Your task to perform on an android device: allow cookies in the chrome app Image 0: 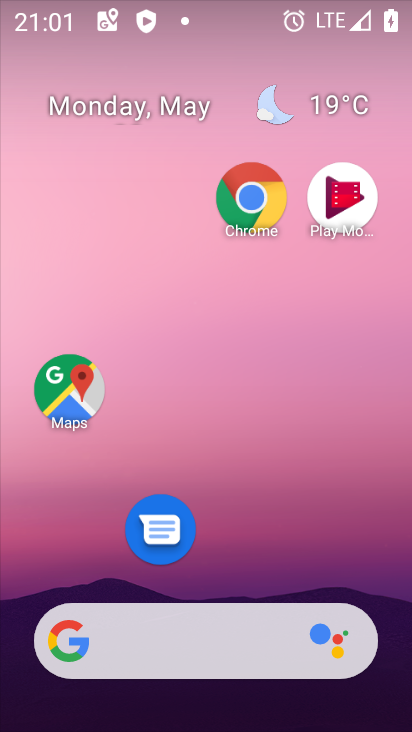
Step 0: click (241, 198)
Your task to perform on an android device: allow cookies in the chrome app Image 1: 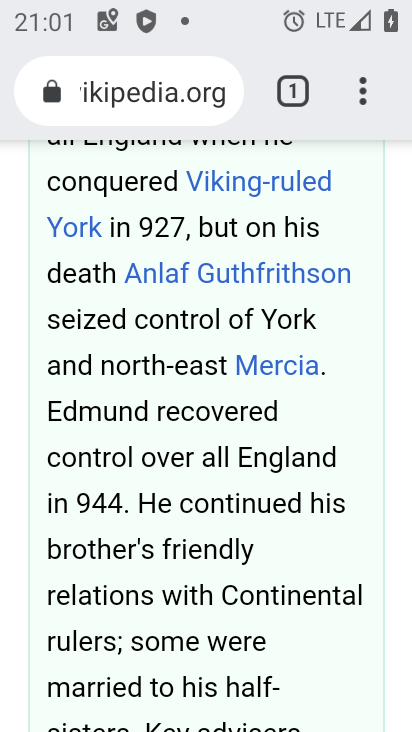
Step 1: click (361, 102)
Your task to perform on an android device: allow cookies in the chrome app Image 2: 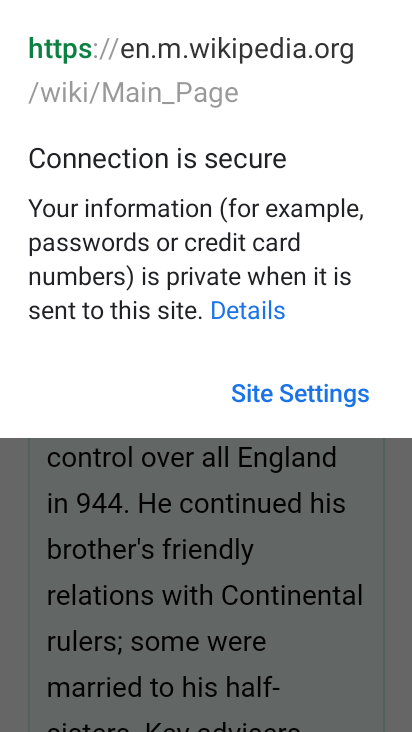
Step 2: click (222, 485)
Your task to perform on an android device: allow cookies in the chrome app Image 3: 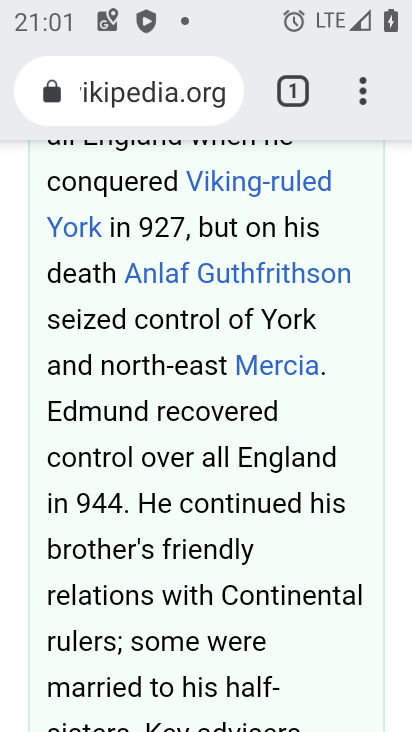
Step 3: click (360, 104)
Your task to perform on an android device: allow cookies in the chrome app Image 4: 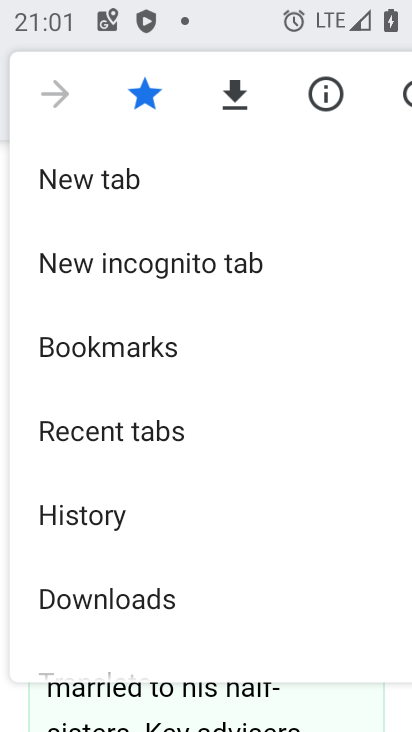
Step 4: drag from (118, 578) to (120, 218)
Your task to perform on an android device: allow cookies in the chrome app Image 5: 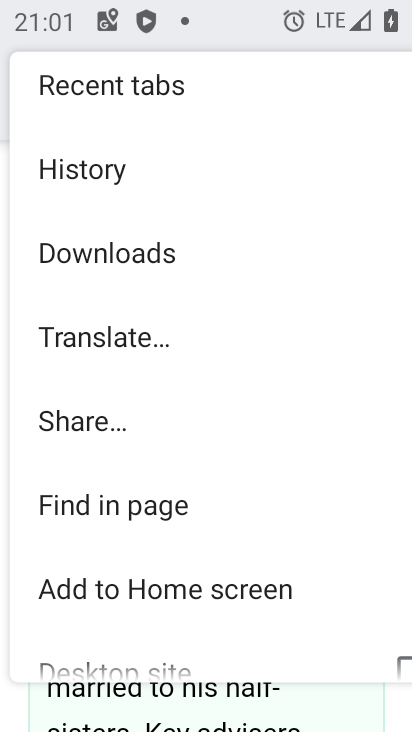
Step 5: drag from (124, 532) to (167, 278)
Your task to perform on an android device: allow cookies in the chrome app Image 6: 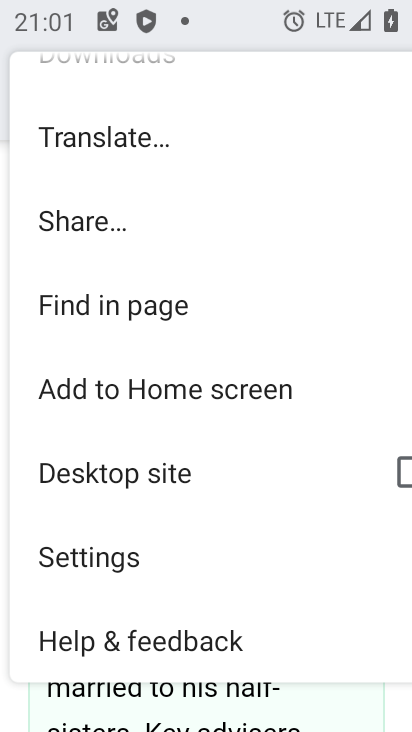
Step 6: click (98, 569)
Your task to perform on an android device: allow cookies in the chrome app Image 7: 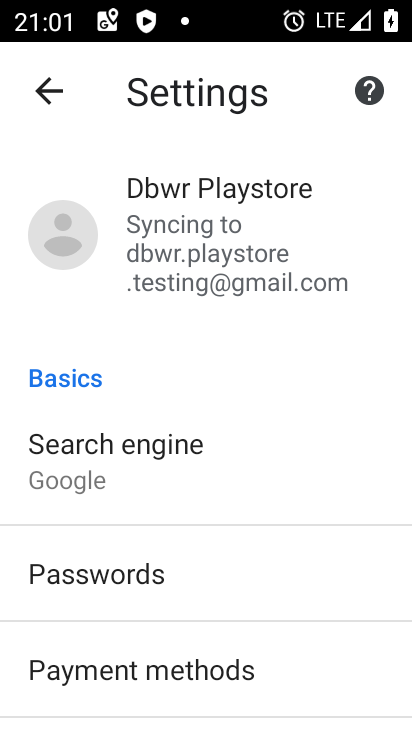
Step 7: drag from (172, 619) to (231, 389)
Your task to perform on an android device: allow cookies in the chrome app Image 8: 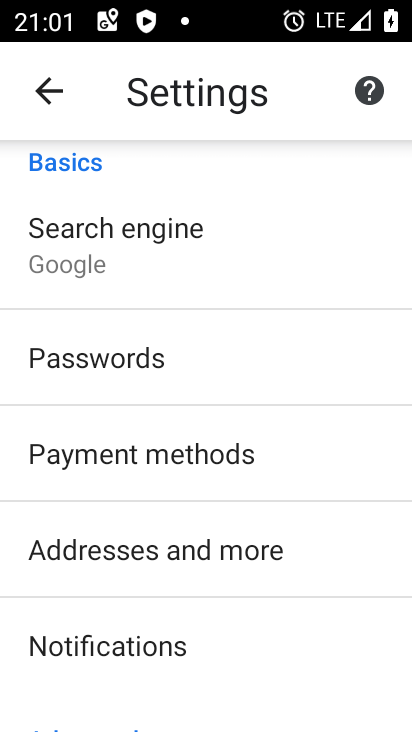
Step 8: drag from (159, 605) to (175, 298)
Your task to perform on an android device: allow cookies in the chrome app Image 9: 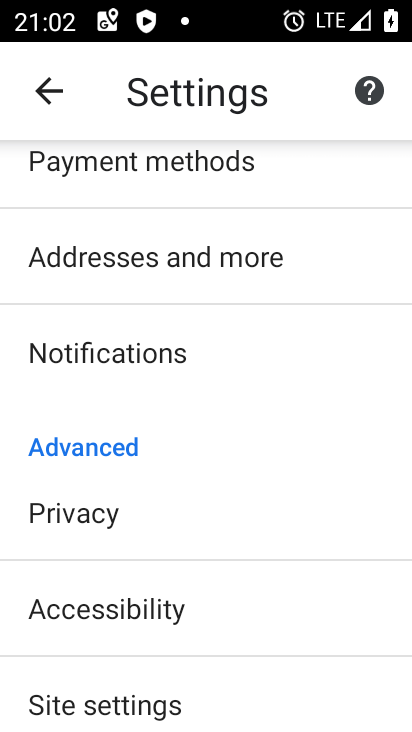
Step 9: drag from (188, 525) to (241, 276)
Your task to perform on an android device: allow cookies in the chrome app Image 10: 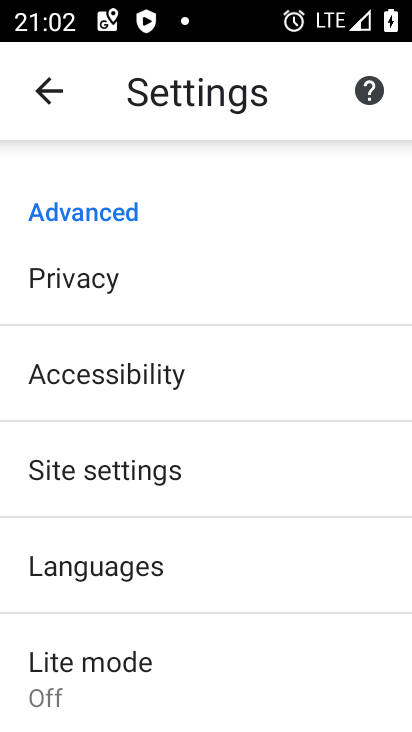
Step 10: click (122, 470)
Your task to perform on an android device: allow cookies in the chrome app Image 11: 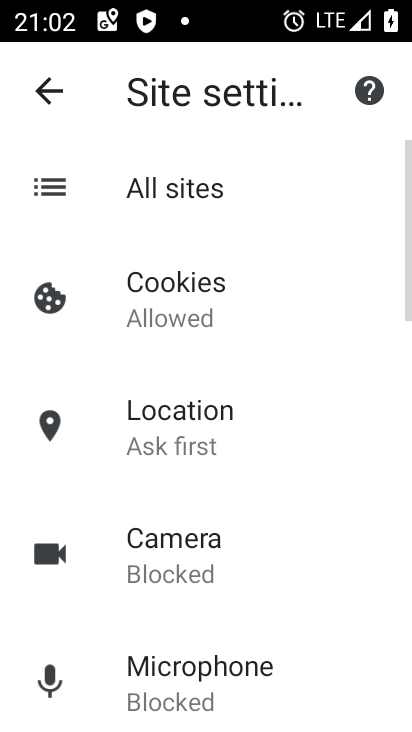
Step 11: click (187, 298)
Your task to perform on an android device: allow cookies in the chrome app Image 12: 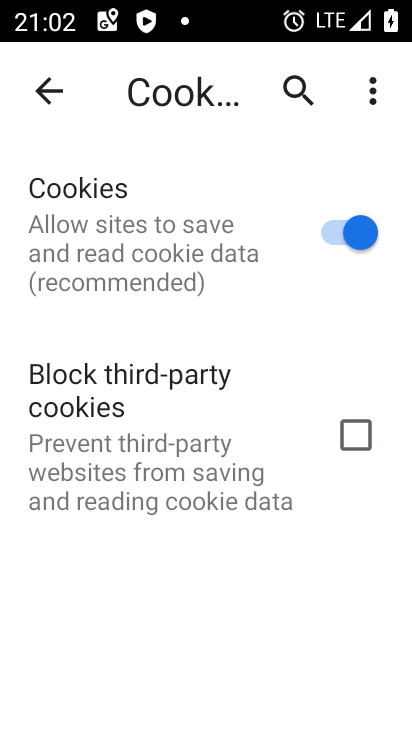
Step 12: task complete